Your task to perform on an android device: change text size in settings app Image 0: 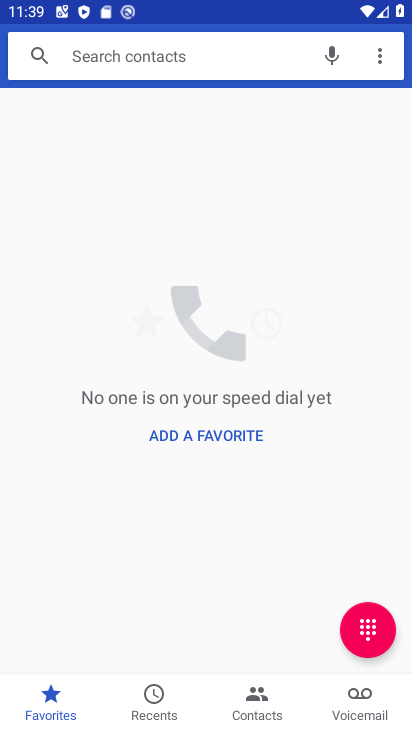
Step 0: task complete